Your task to perform on an android device: Open my contact list Image 0: 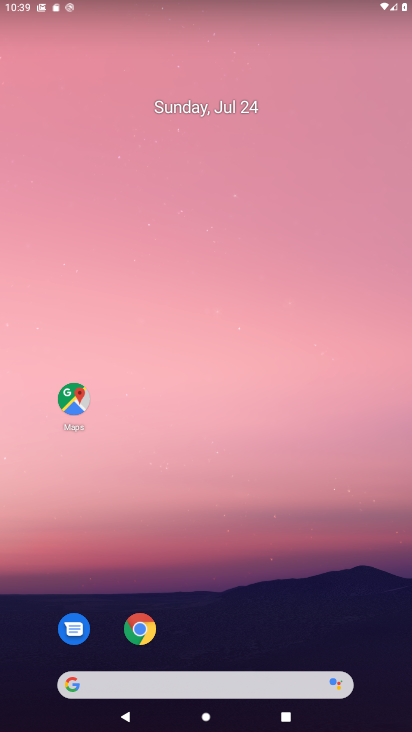
Step 0: drag from (241, 616) to (243, 78)
Your task to perform on an android device: Open my contact list Image 1: 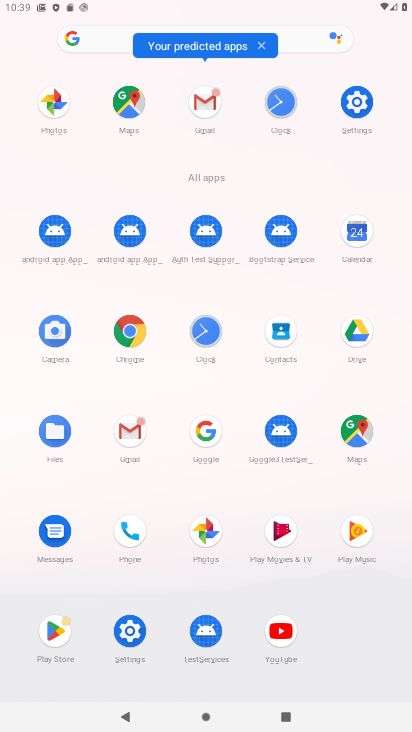
Step 1: click (279, 342)
Your task to perform on an android device: Open my contact list Image 2: 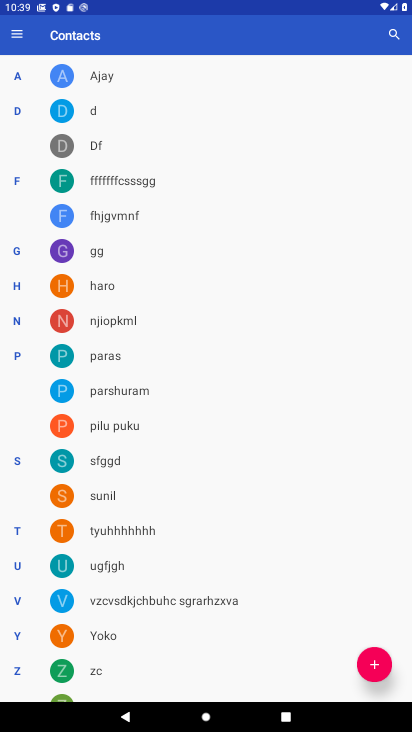
Step 2: task complete